Your task to perform on an android device: Search for vegetarian restaurants on Maps Image 0: 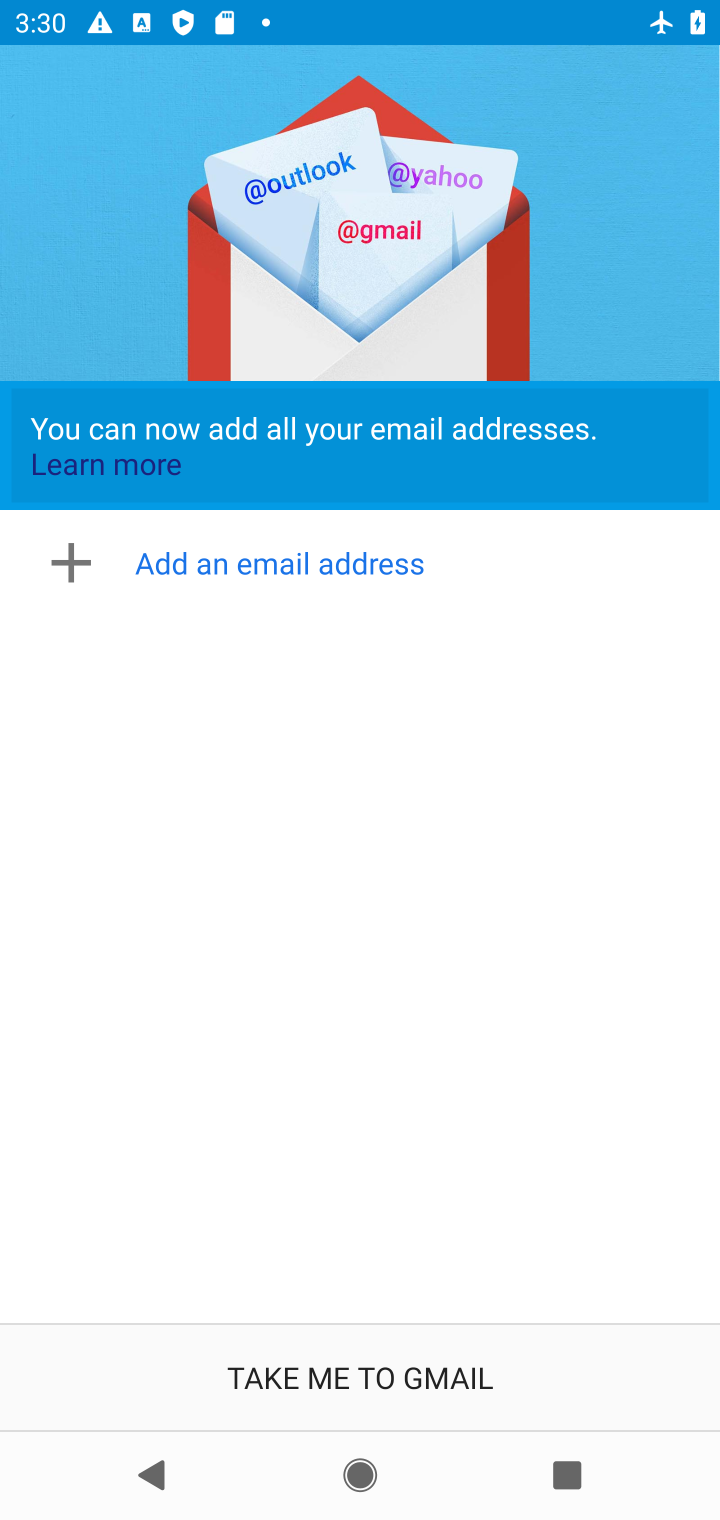
Step 0: press home button
Your task to perform on an android device: Search for vegetarian restaurants on Maps Image 1: 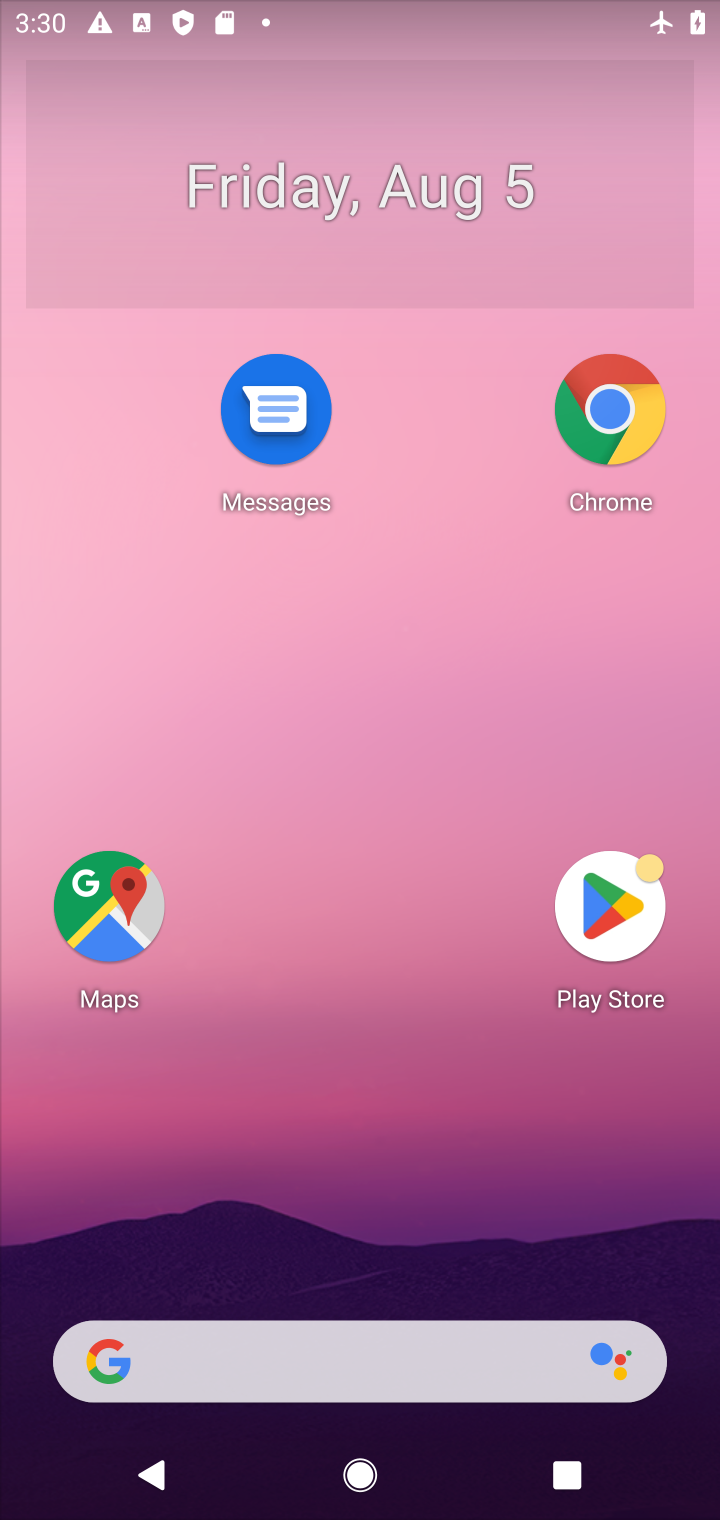
Step 1: drag from (366, 870) to (368, 365)
Your task to perform on an android device: Search for vegetarian restaurants on Maps Image 2: 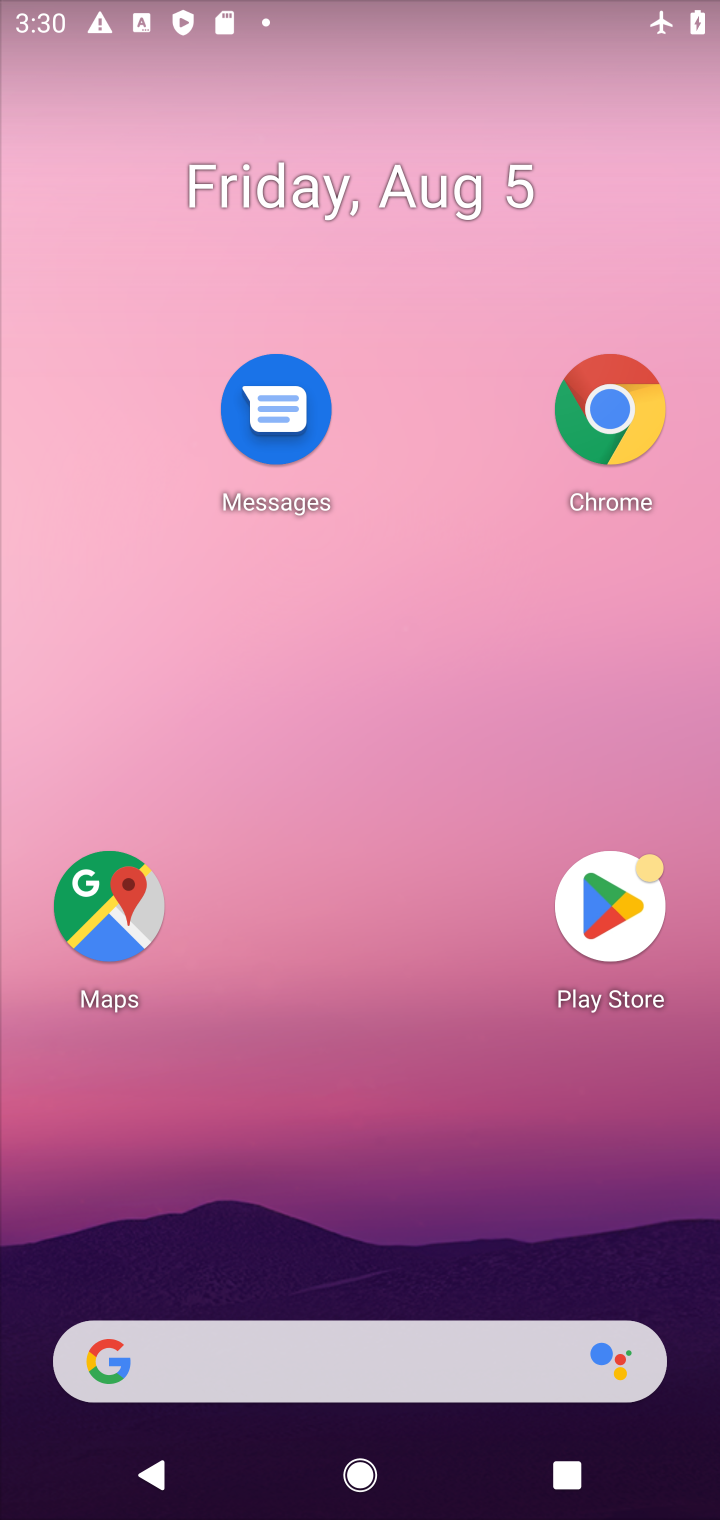
Step 2: click (127, 876)
Your task to perform on an android device: Search for vegetarian restaurants on Maps Image 3: 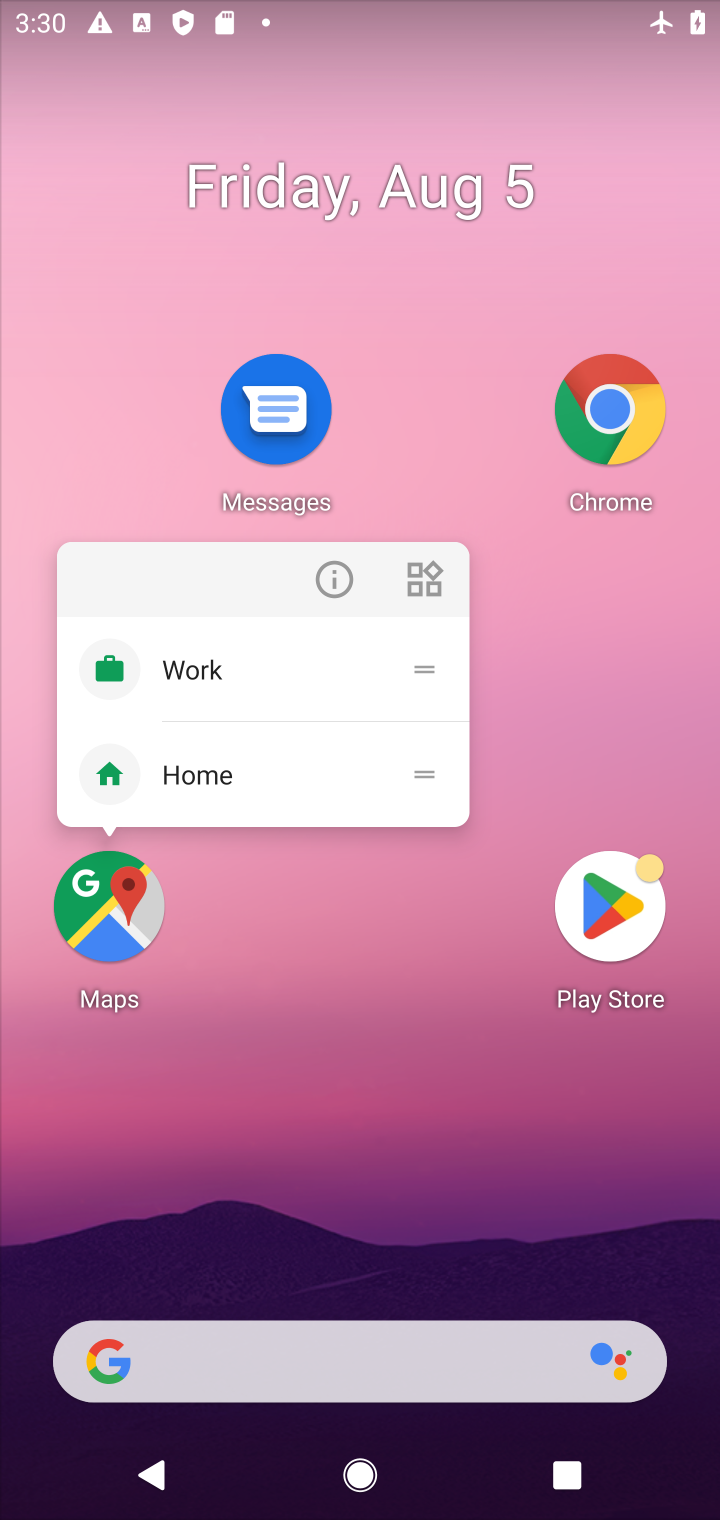
Step 3: click (127, 876)
Your task to perform on an android device: Search for vegetarian restaurants on Maps Image 4: 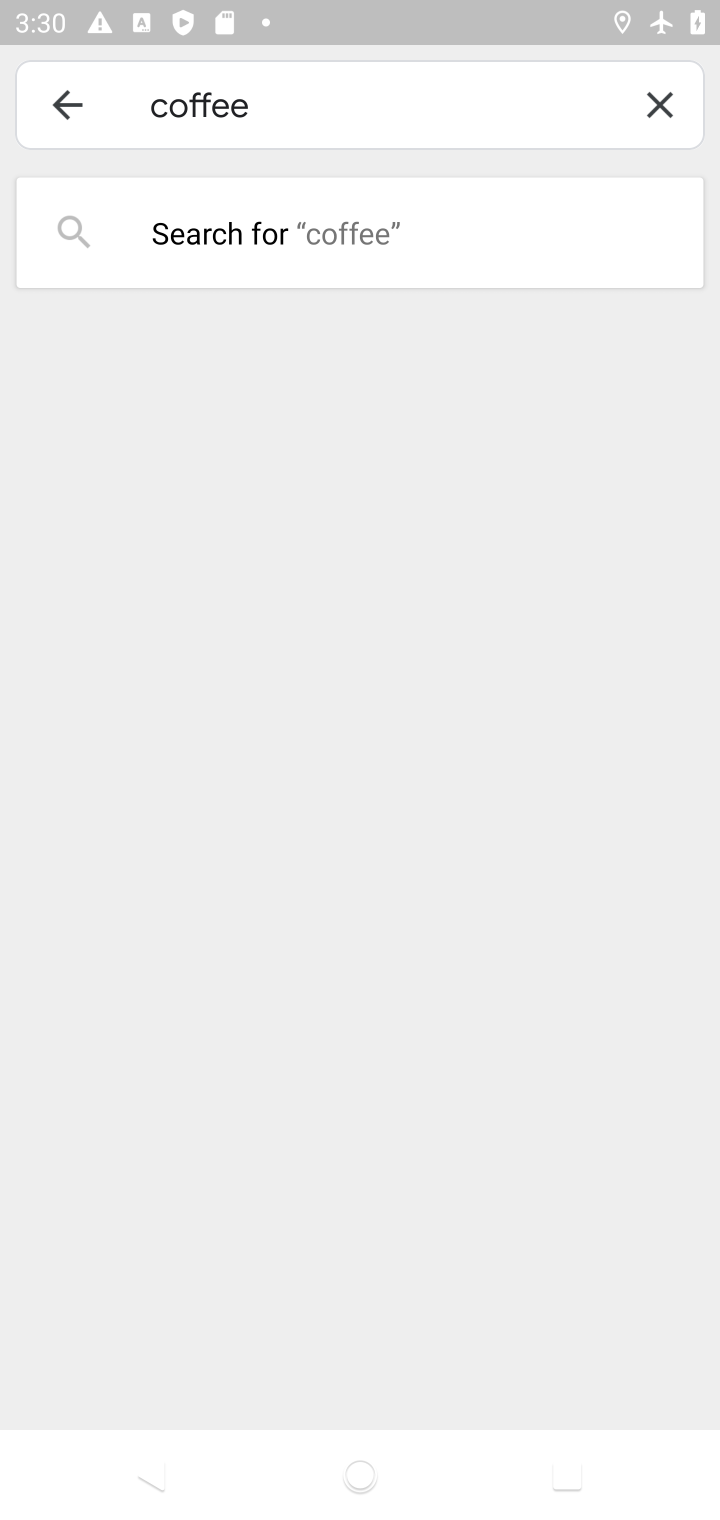
Step 4: click (643, 107)
Your task to perform on an android device: Search for vegetarian restaurants on Maps Image 5: 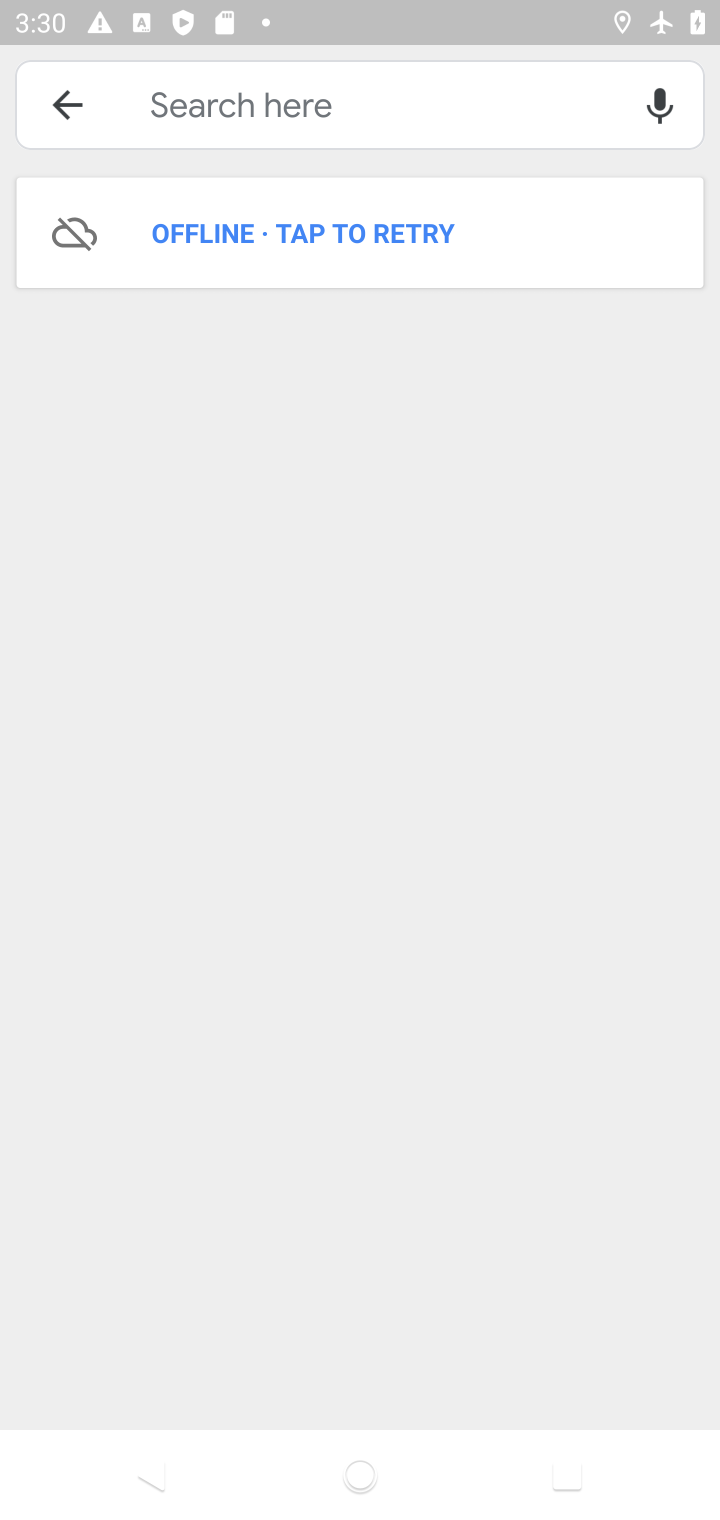
Step 5: type "vegetarian restaurants"
Your task to perform on an android device: Search for vegetarian restaurants on Maps Image 6: 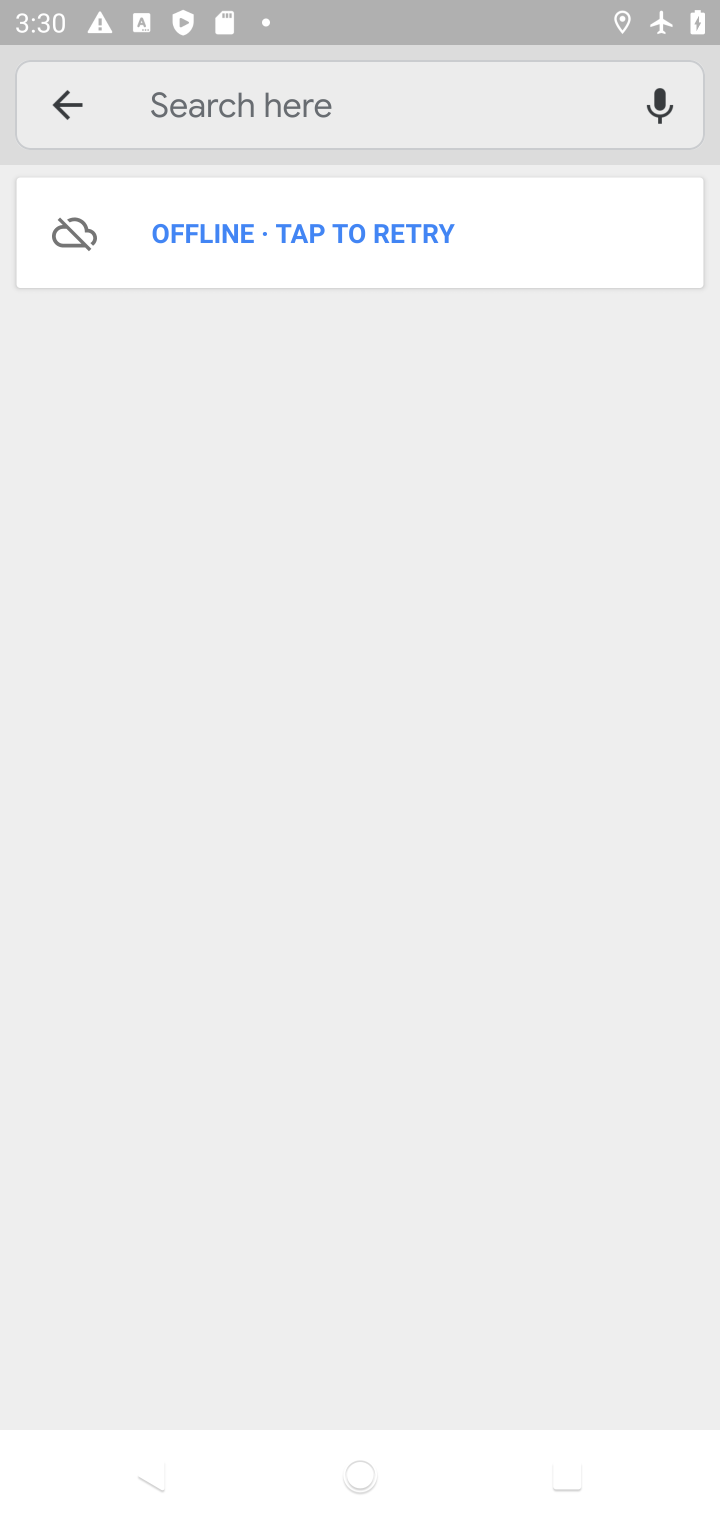
Step 6: click (334, 101)
Your task to perform on an android device: Search for vegetarian restaurants on Maps Image 7: 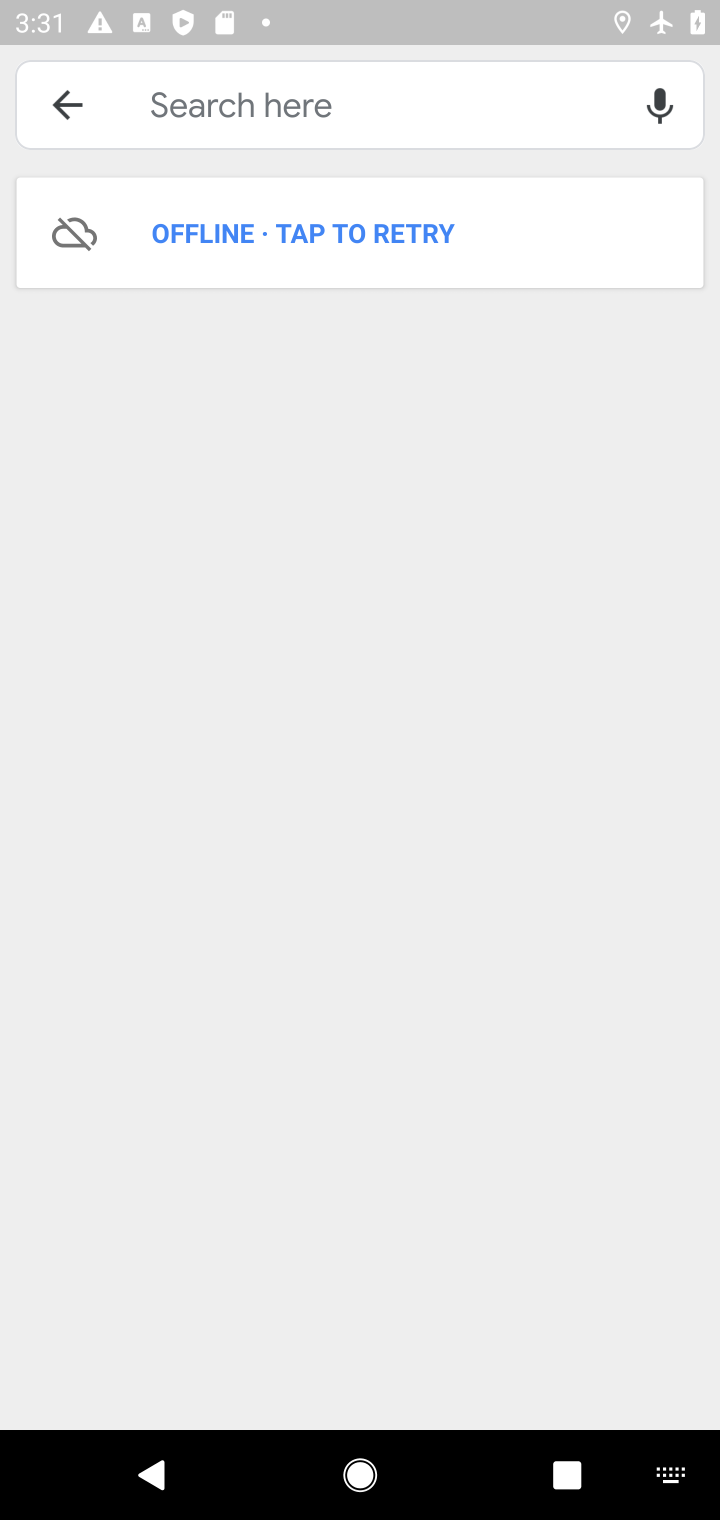
Step 7: type "vegetarian restaurants"
Your task to perform on an android device: Search for vegetarian restaurants on Maps Image 8: 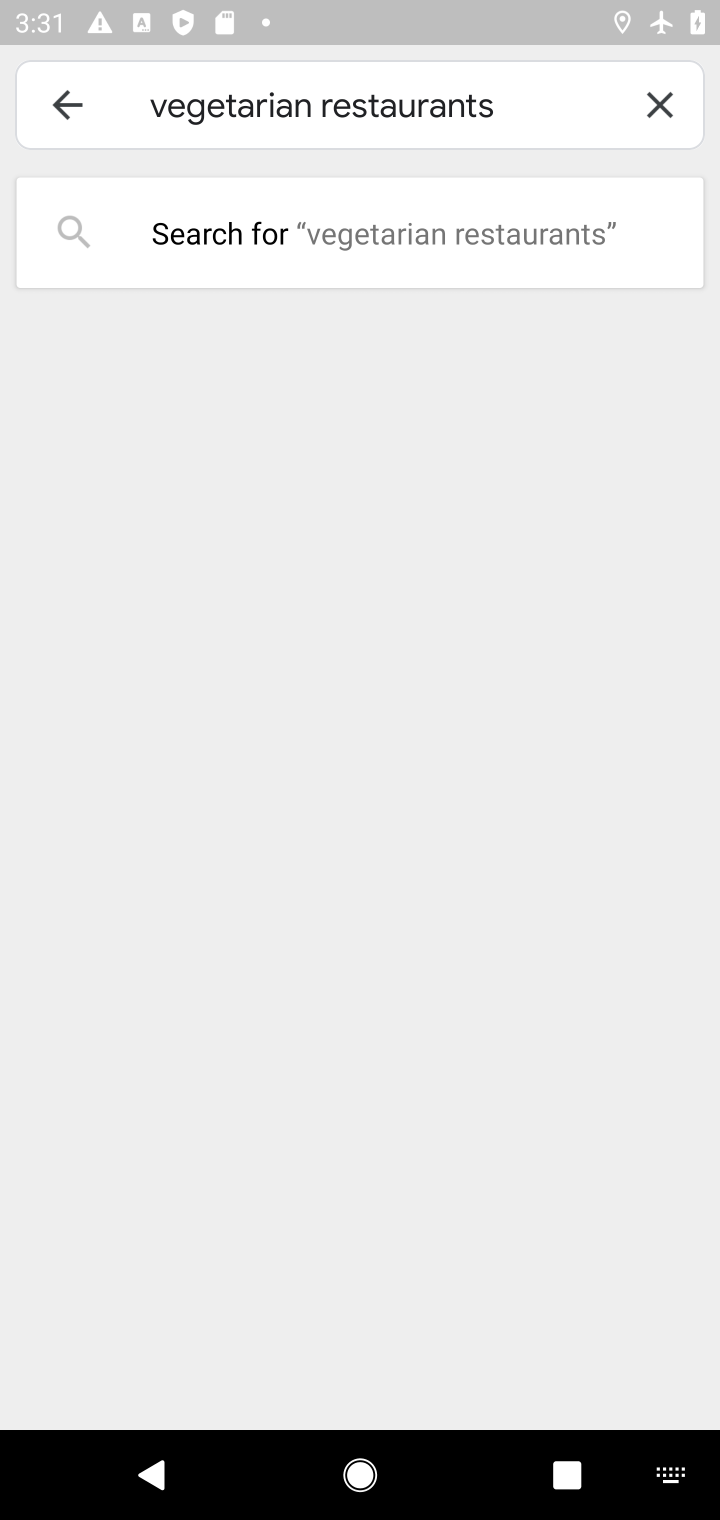
Step 8: task complete